Your task to perform on an android device: Go to network settings Image 0: 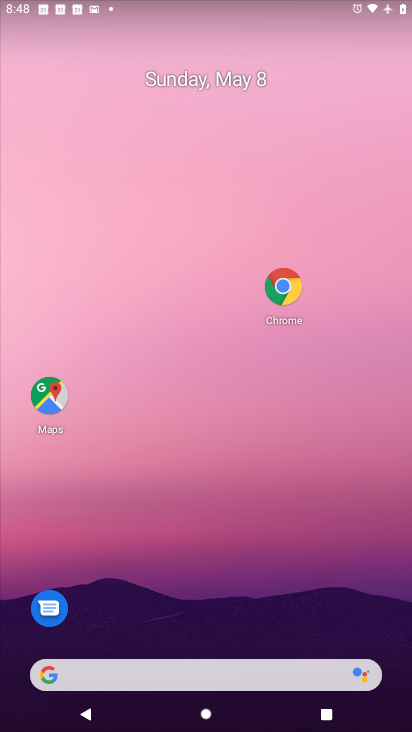
Step 0: drag from (178, 677) to (344, 114)
Your task to perform on an android device: Go to network settings Image 1: 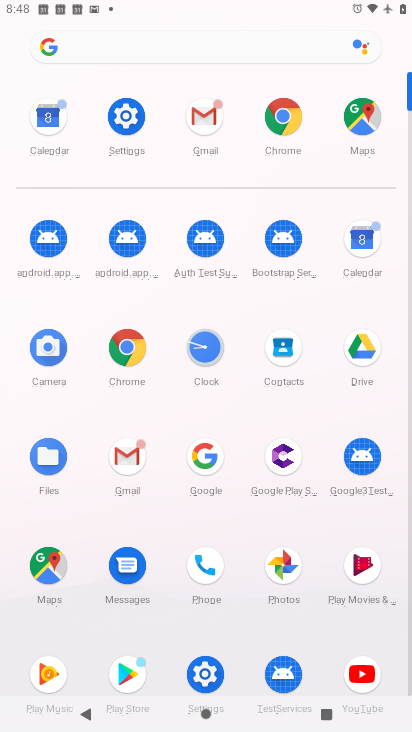
Step 1: click (117, 118)
Your task to perform on an android device: Go to network settings Image 2: 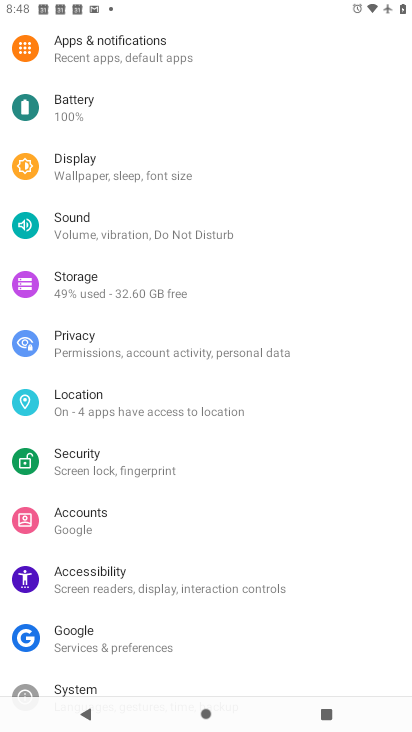
Step 2: drag from (293, 40) to (257, 630)
Your task to perform on an android device: Go to network settings Image 3: 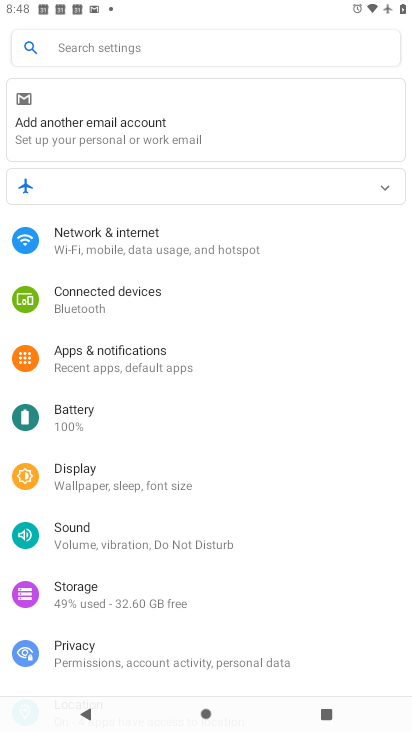
Step 3: click (156, 246)
Your task to perform on an android device: Go to network settings Image 4: 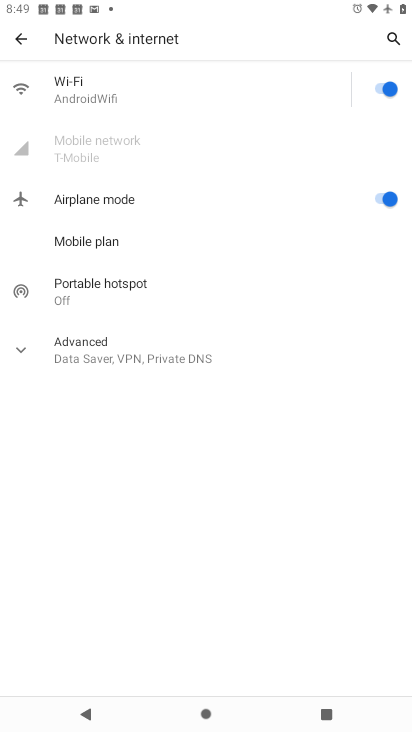
Step 4: task complete